Your task to perform on an android device: uninstall "Google Translate" Image 0: 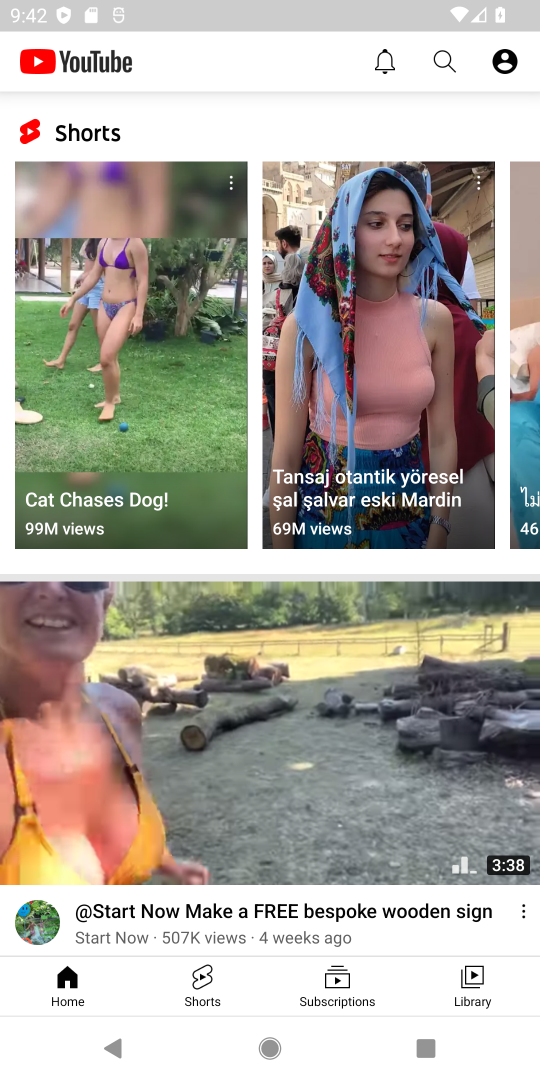
Step 0: task complete